Your task to perform on an android device: Open internet settings Image 0: 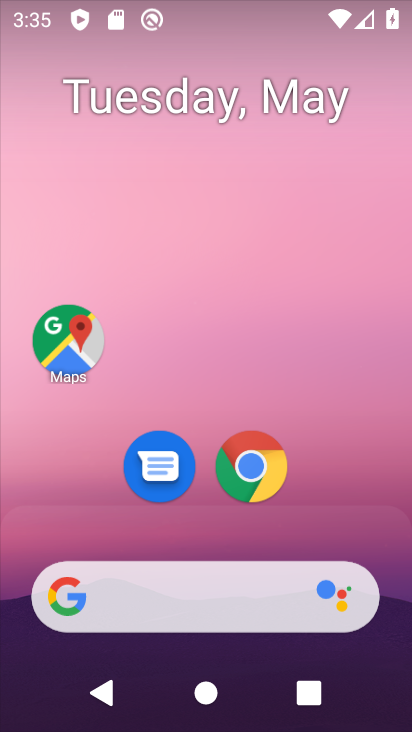
Step 0: drag from (142, 488) to (109, 11)
Your task to perform on an android device: Open internet settings Image 1: 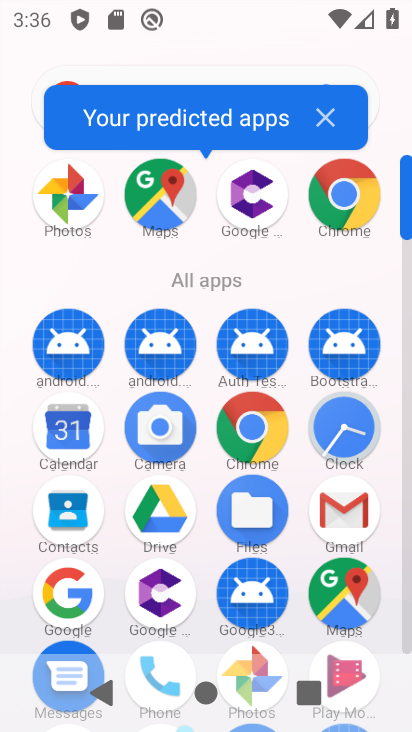
Step 1: drag from (105, 558) to (93, 135)
Your task to perform on an android device: Open internet settings Image 2: 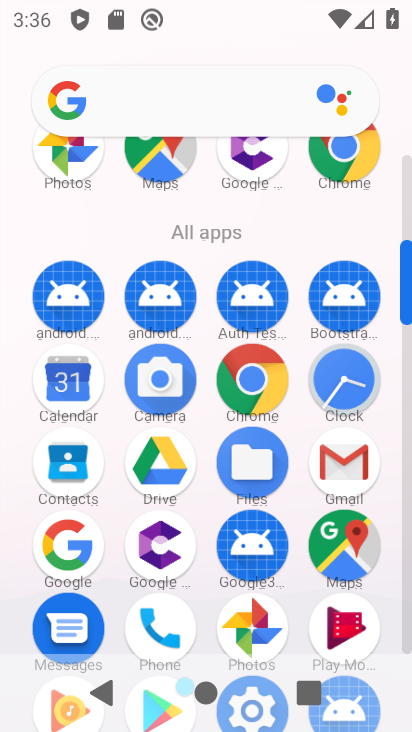
Step 2: drag from (203, 645) to (198, 285)
Your task to perform on an android device: Open internet settings Image 3: 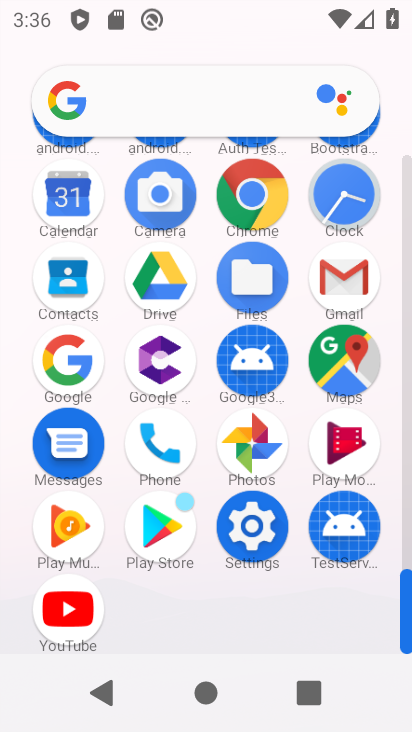
Step 3: click (244, 541)
Your task to perform on an android device: Open internet settings Image 4: 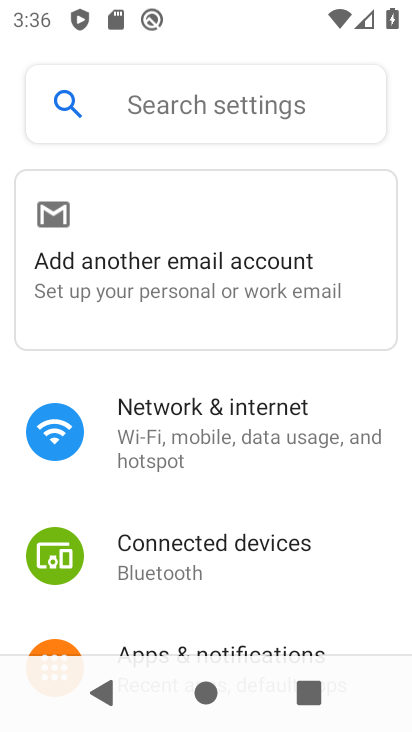
Step 4: click (254, 443)
Your task to perform on an android device: Open internet settings Image 5: 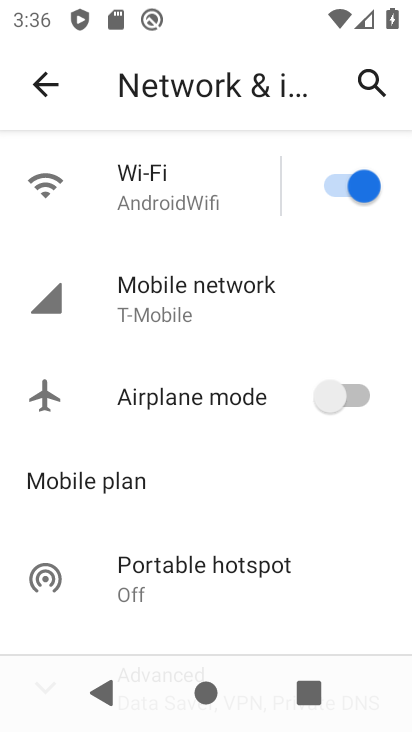
Step 5: click (211, 518)
Your task to perform on an android device: Open internet settings Image 6: 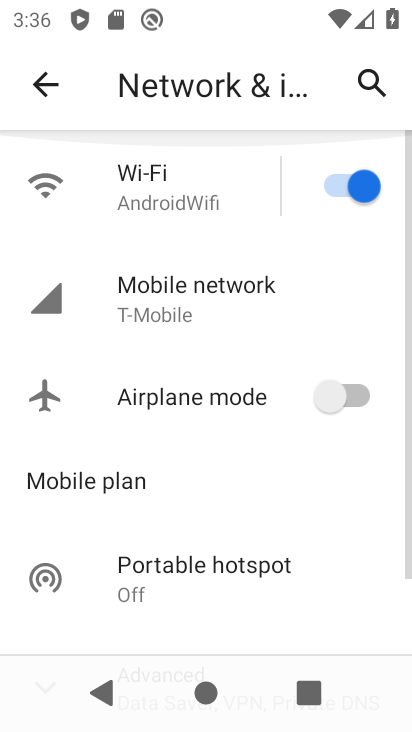
Step 6: click (207, 310)
Your task to perform on an android device: Open internet settings Image 7: 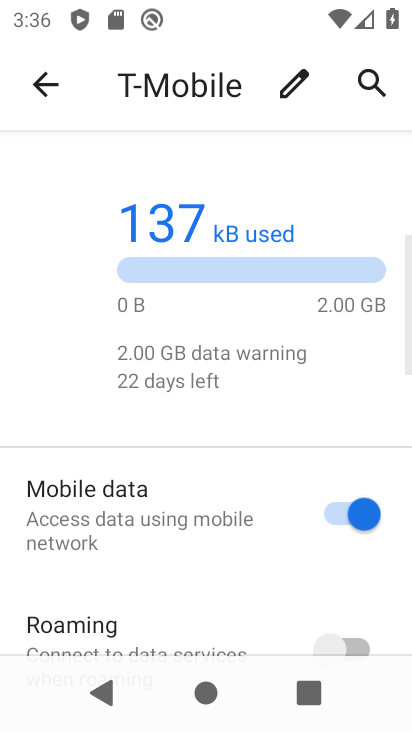
Step 7: task complete